Your task to perform on an android device: open sync settings in chrome Image 0: 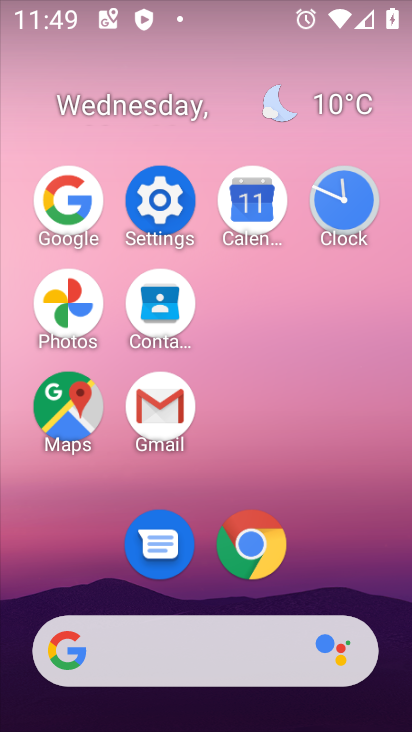
Step 0: click (267, 551)
Your task to perform on an android device: open sync settings in chrome Image 1: 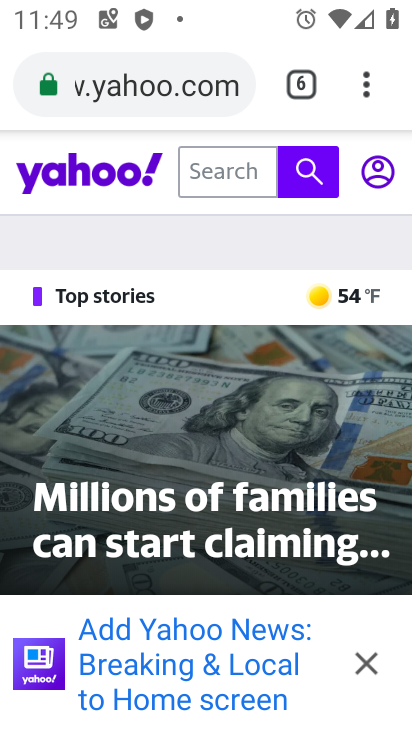
Step 1: click (382, 85)
Your task to perform on an android device: open sync settings in chrome Image 2: 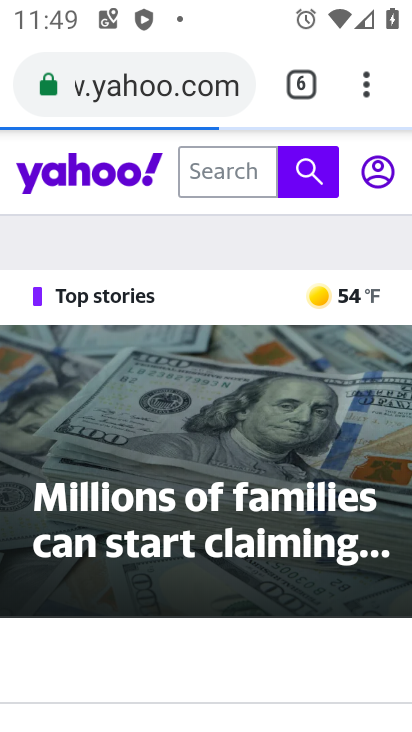
Step 2: click (363, 106)
Your task to perform on an android device: open sync settings in chrome Image 3: 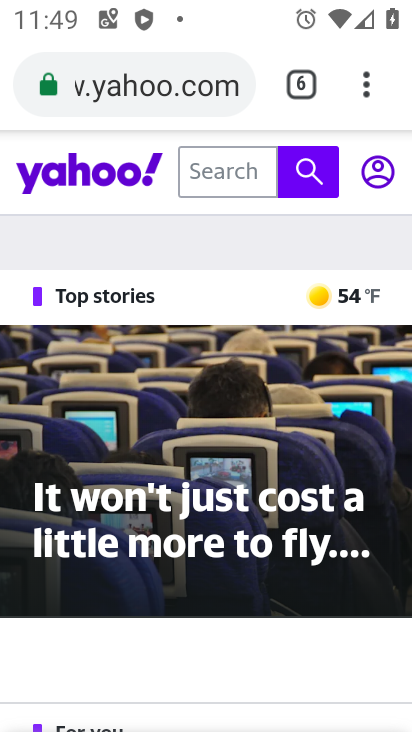
Step 3: click (367, 76)
Your task to perform on an android device: open sync settings in chrome Image 4: 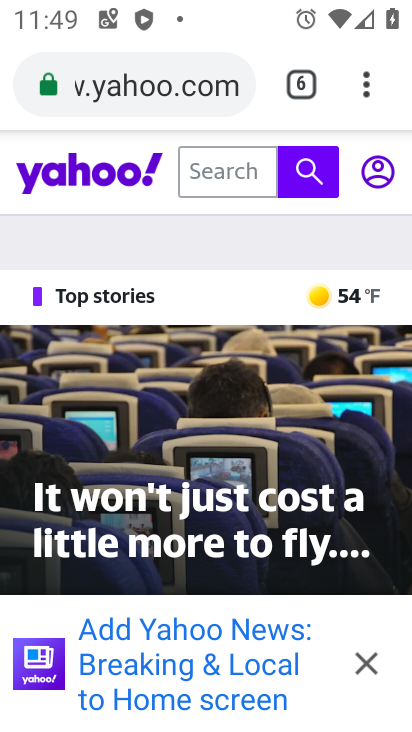
Step 4: click (378, 70)
Your task to perform on an android device: open sync settings in chrome Image 5: 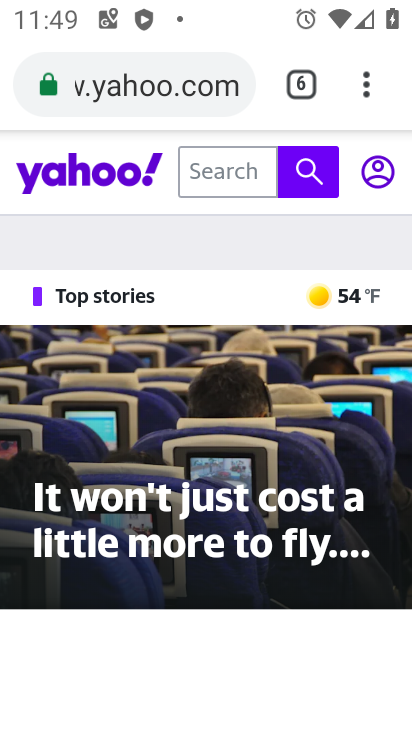
Step 5: click (365, 93)
Your task to perform on an android device: open sync settings in chrome Image 6: 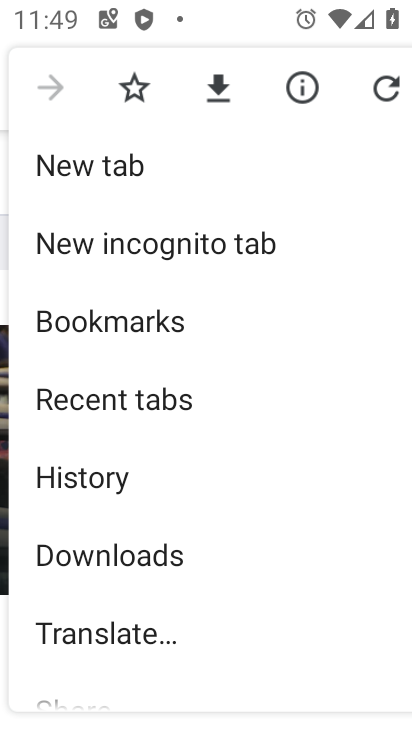
Step 6: drag from (172, 596) to (255, 185)
Your task to perform on an android device: open sync settings in chrome Image 7: 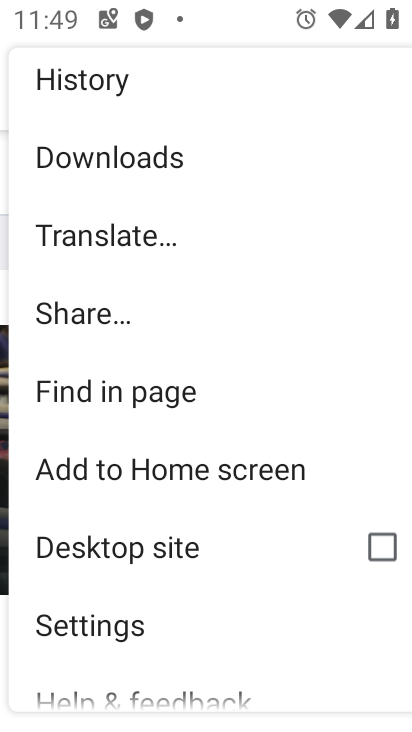
Step 7: click (142, 619)
Your task to perform on an android device: open sync settings in chrome Image 8: 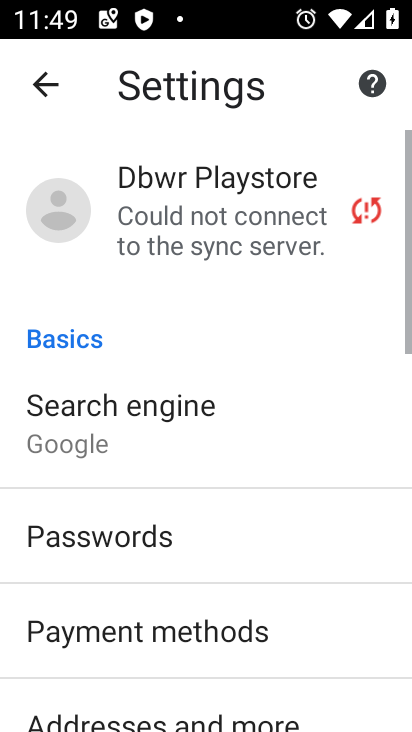
Step 8: drag from (140, 600) to (207, 165)
Your task to perform on an android device: open sync settings in chrome Image 9: 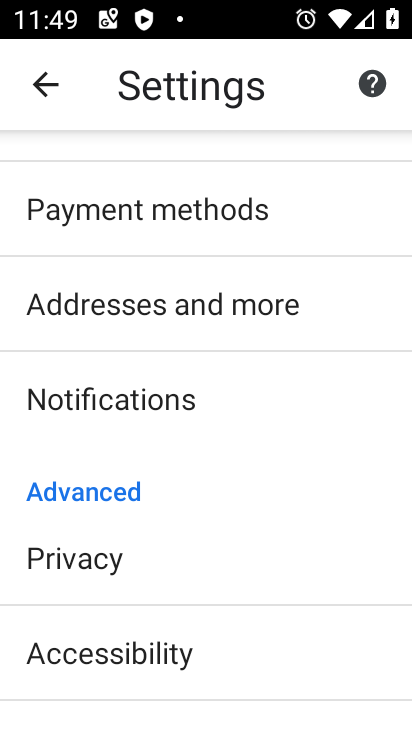
Step 9: drag from (188, 610) to (242, 253)
Your task to perform on an android device: open sync settings in chrome Image 10: 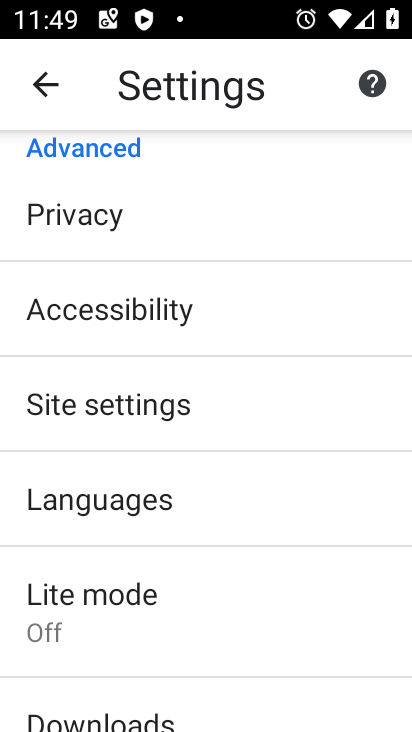
Step 10: click (229, 424)
Your task to perform on an android device: open sync settings in chrome Image 11: 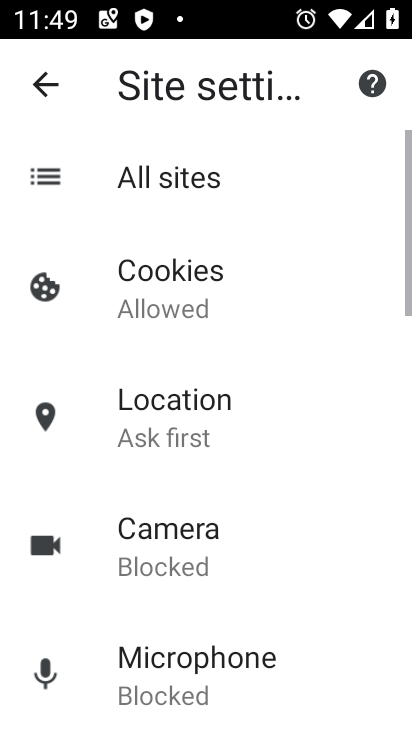
Step 11: drag from (293, 579) to (292, 265)
Your task to perform on an android device: open sync settings in chrome Image 12: 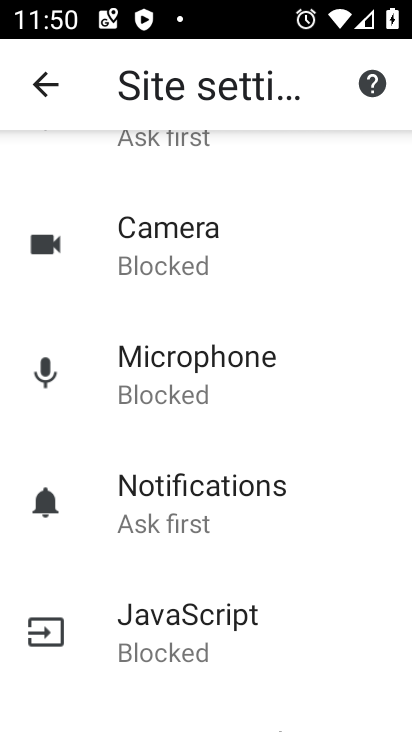
Step 12: drag from (245, 605) to (309, 263)
Your task to perform on an android device: open sync settings in chrome Image 13: 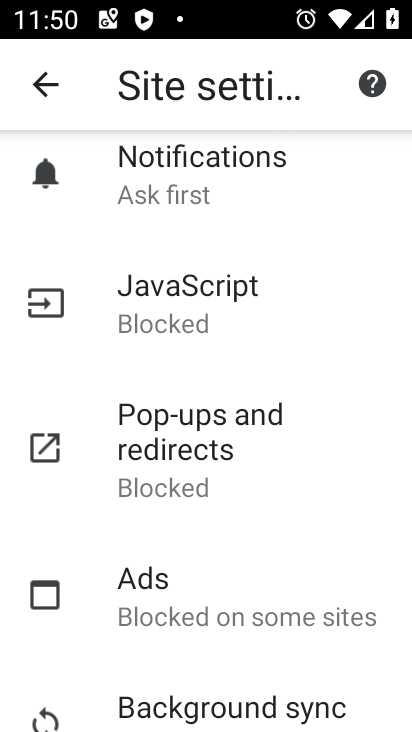
Step 13: drag from (243, 610) to (297, 287)
Your task to perform on an android device: open sync settings in chrome Image 14: 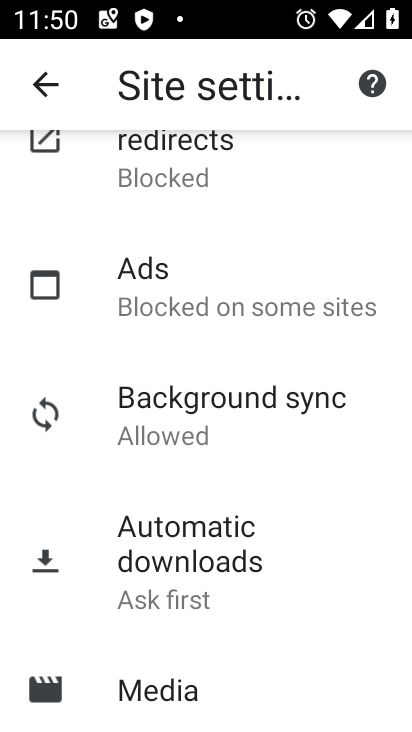
Step 14: click (265, 386)
Your task to perform on an android device: open sync settings in chrome Image 15: 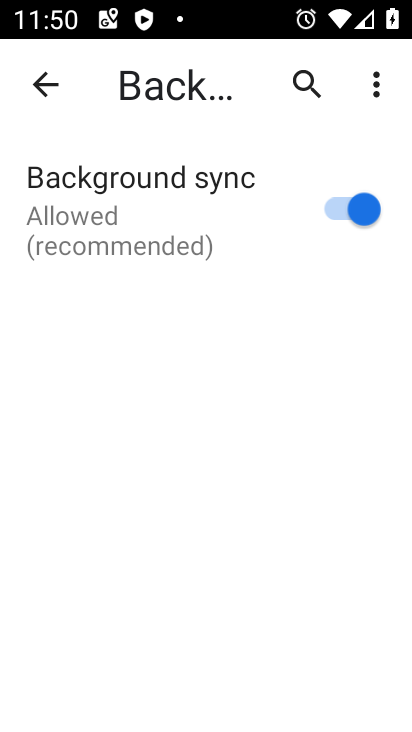
Step 15: task complete